Your task to perform on an android device: Turn on the flashlight Image 0: 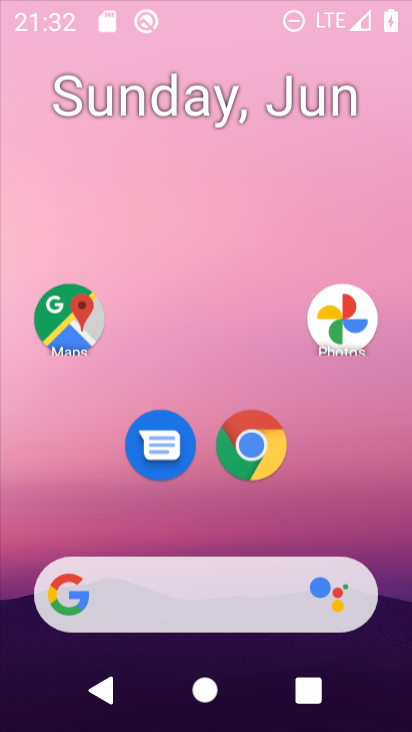
Step 0: press home button
Your task to perform on an android device: Turn on the flashlight Image 1: 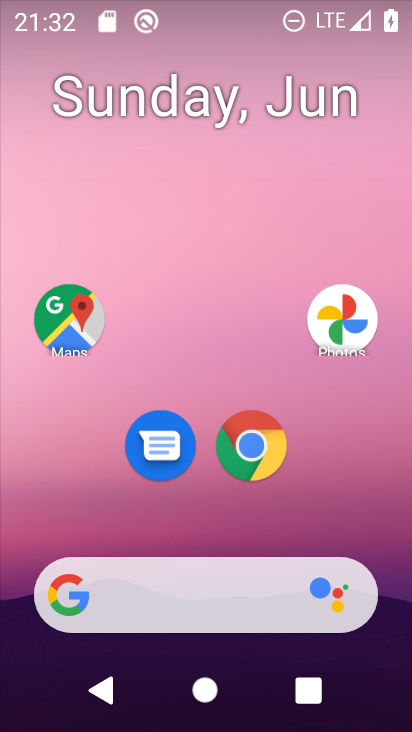
Step 1: task complete